Your task to perform on an android device: allow cookies in the chrome app Image 0: 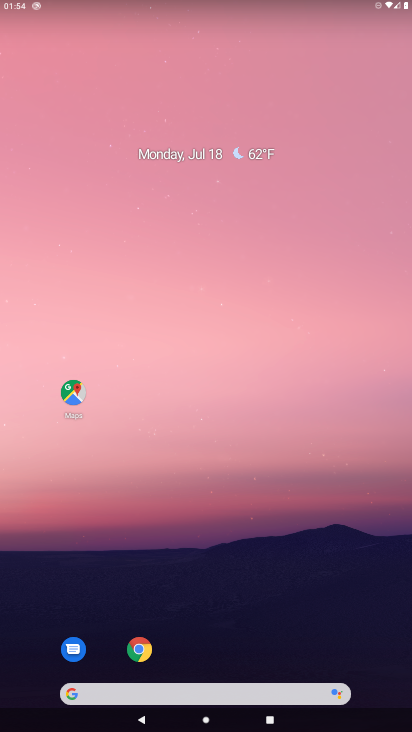
Step 0: click (135, 650)
Your task to perform on an android device: allow cookies in the chrome app Image 1: 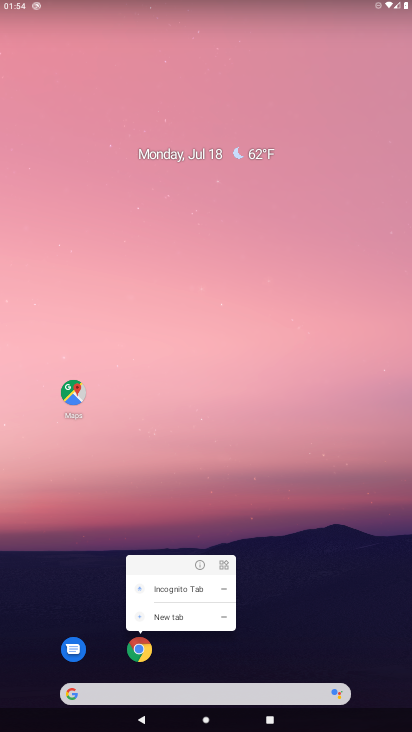
Step 1: click (130, 648)
Your task to perform on an android device: allow cookies in the chrome app Image 2: 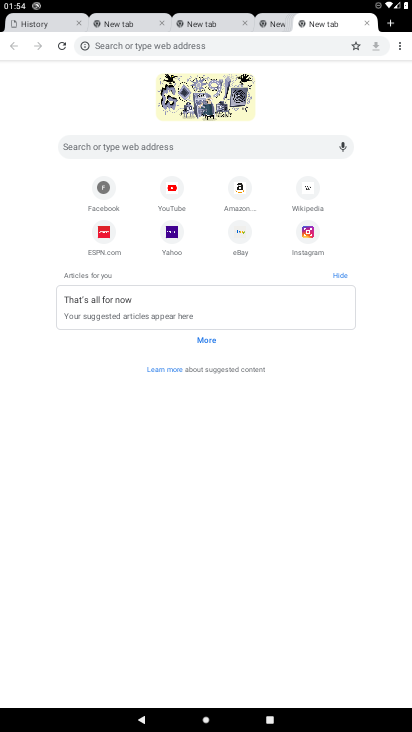
Step 2: click (401, 44)
Your task to perform on an android device: allow cookies in the chrome app Image 3: 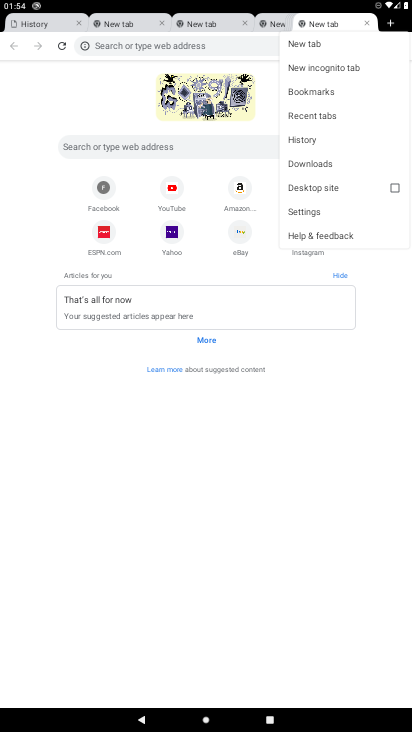
Step 3: click (315, 94)
Your task to perform on an android device: allow cookies in the chrome app Image 4: 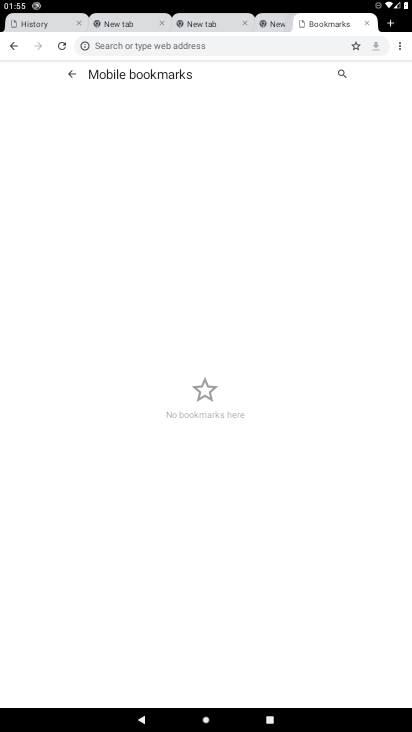
Step 4: click (391, 40)
Your task to perform on an android device: allow cookies in the chrome app Image 5: 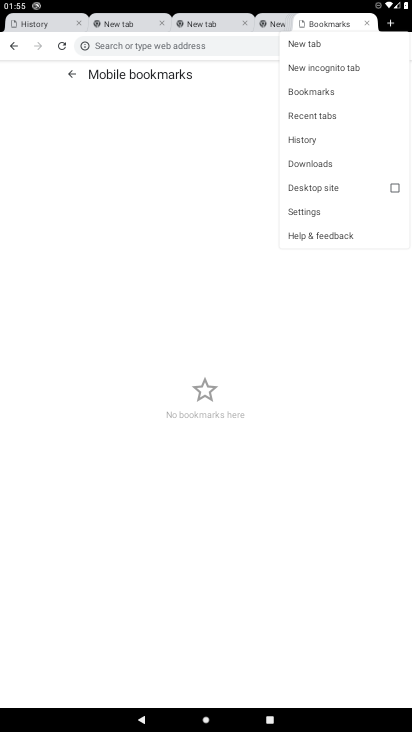
Step 5: click (312, 226)
Your task to perform on an android device: allow cookies in the chrome app Image 6: 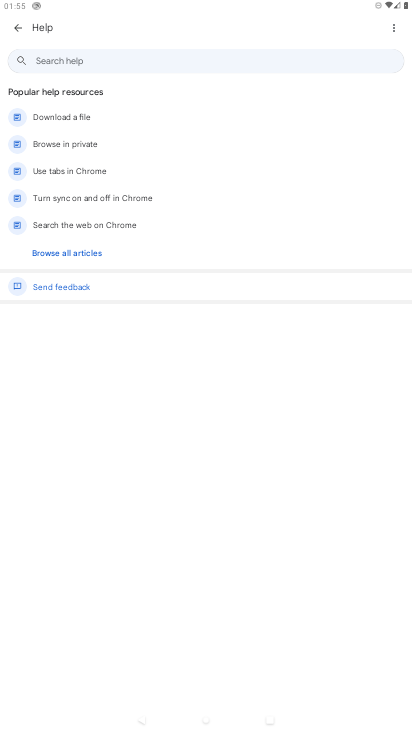
Step 6: task complete